Your task to perform on an android device: Go to wifi settings Image 0: 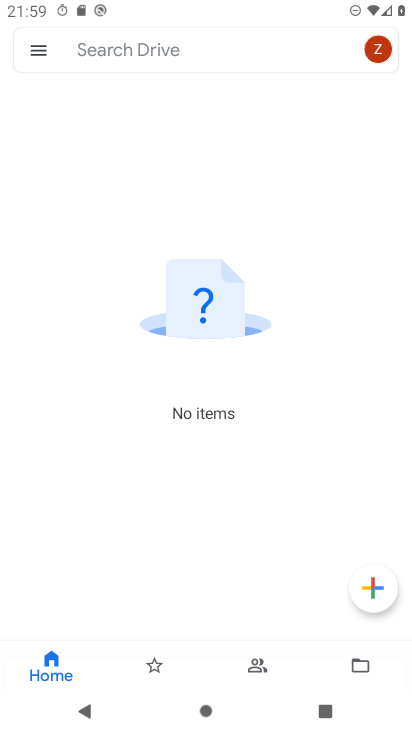
Step 0: press home button
Your task to perform on an android device: Go to wifi settings Image 1: 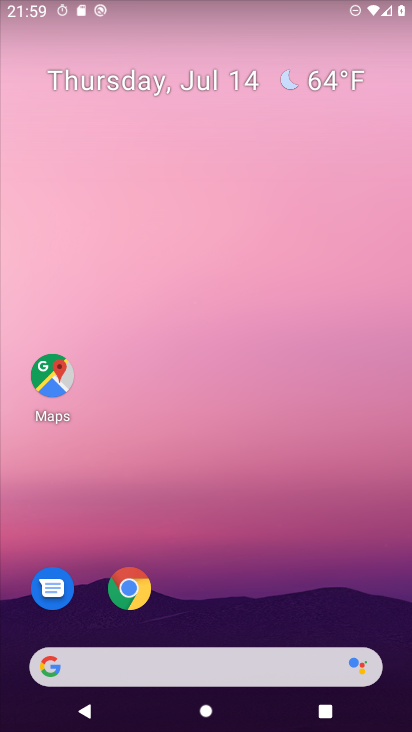
Step 1: drag from (367, 600) to (391, 88)
Your task to perform on an android device: Go to wifi settings Image 2: 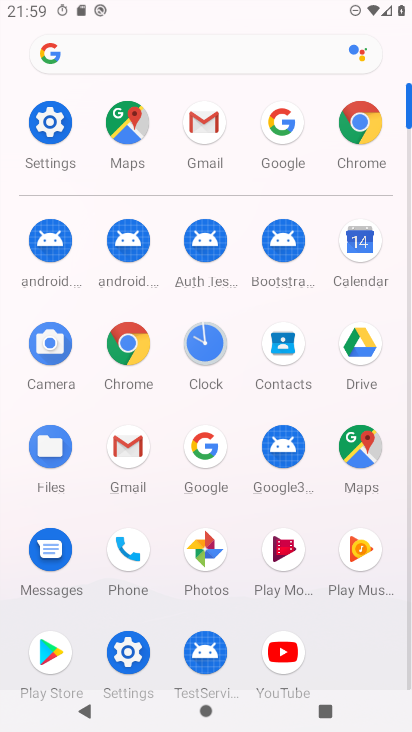
Step 2: click (61, 121)
Your task to perform on an android device: Go to wifi settings Image 3: 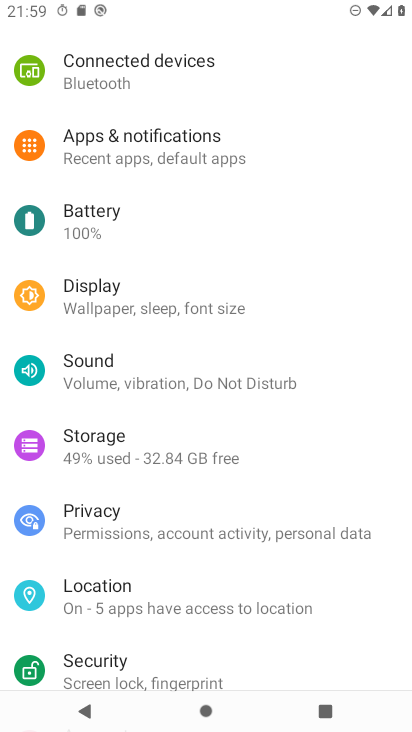
Step 3: drag from (344, 254) to (348, 347)
Your task to perform on an android device: Go to wifi settings Image 4: 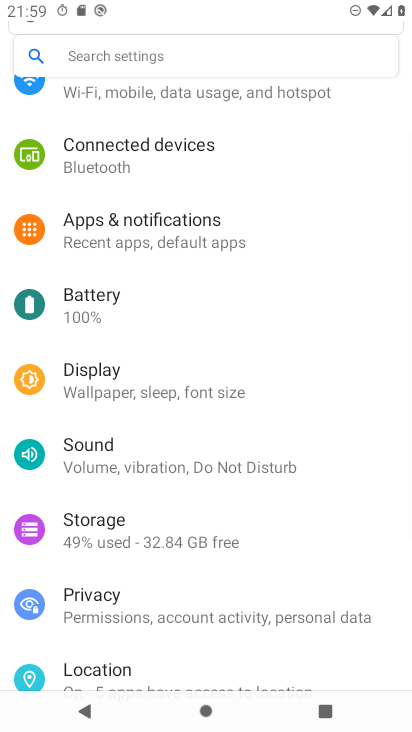
Step 4: drag from (341, 238) to (342, 368)
Your task to perform on an android device: Go to wifi settings Image 5: 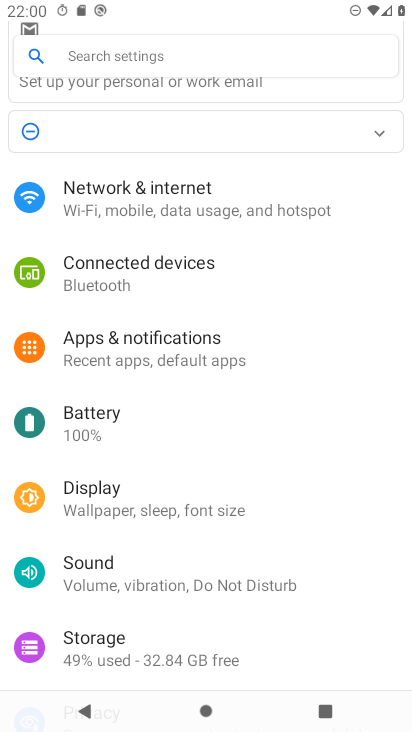
Step 5: drag from (334, 267) to (335, 359)
Your task to perform on an android device: Go to wifi settings Image 6: 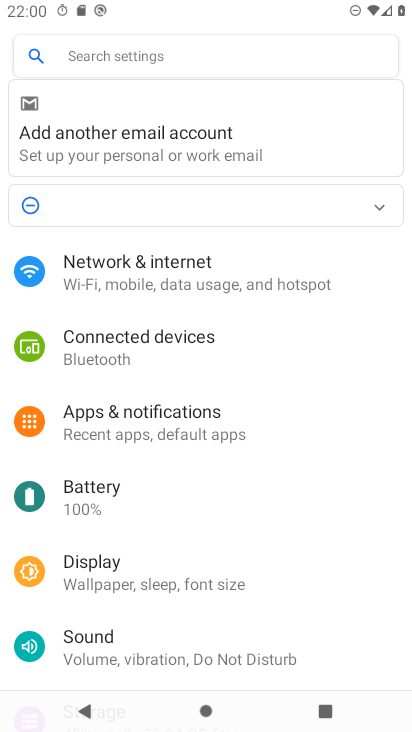
Step 6: click (295, 278)
Your task to perform on an android device: Go to wifi settings Image 7: 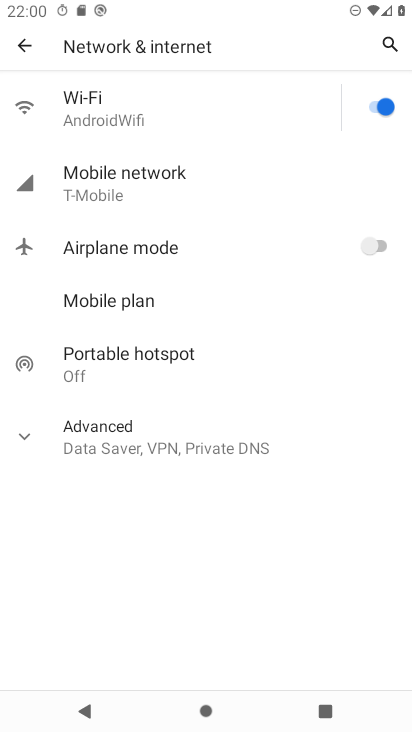
Step 7: click (125, 114)
Your task to perform on an android device: Go to wifi settings Image 8: 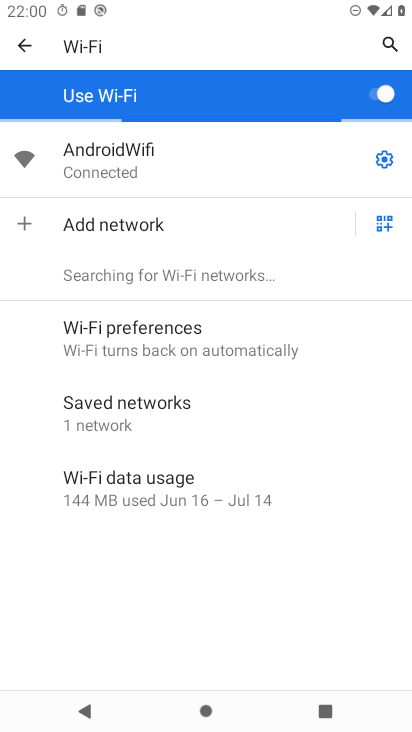
Step 8: task complete